Your task to perform on an android device: delete the emails in spam in the gmail app Image 0: 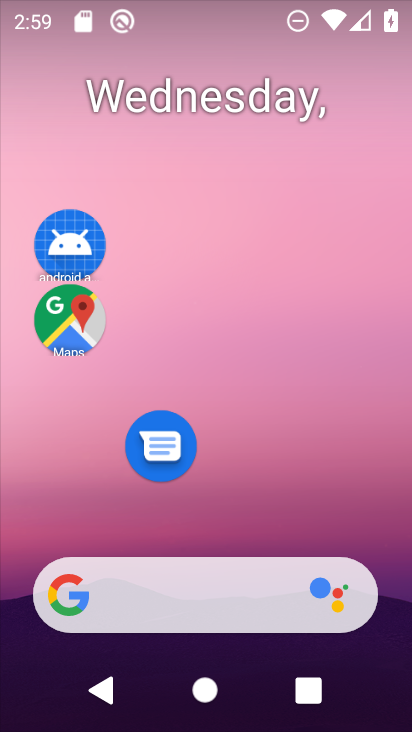
Step 0: drag from (315, 517) to (315, 135)
Your task to perform on an android device: delete the emails in spam in the gmail app Image 1: 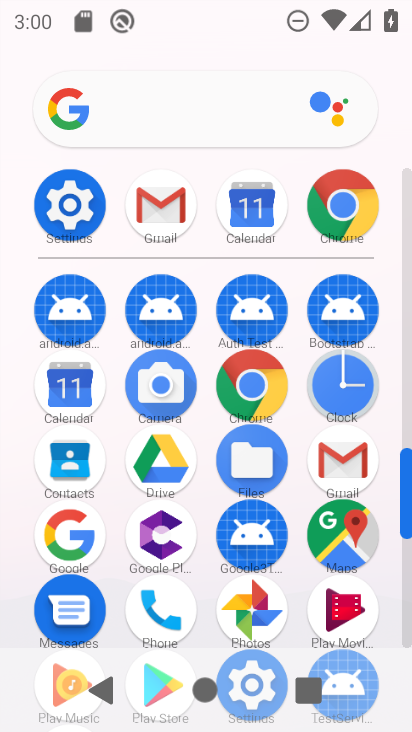
Step 1: click (344, 451)
Your task to perform on an android device: delete the emails in spam in the gmail app Image 2: 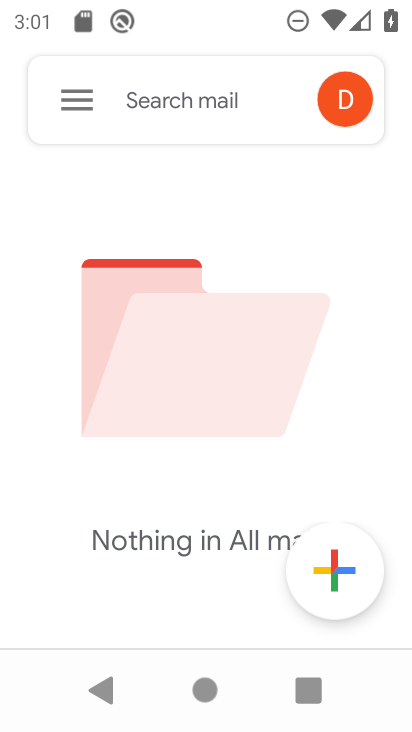
Step 2: click (68, 103)
Your task to perform on an android device: delete the emails in spam in the gmail app Image 3: 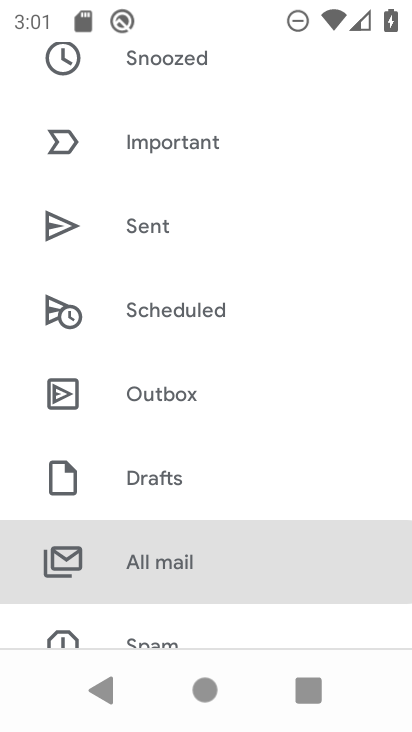
Step 3: drag from (80, 431) to (125, 262)
Your task to perform on an android device: delete the emails in spam in the gmail app Image 4: 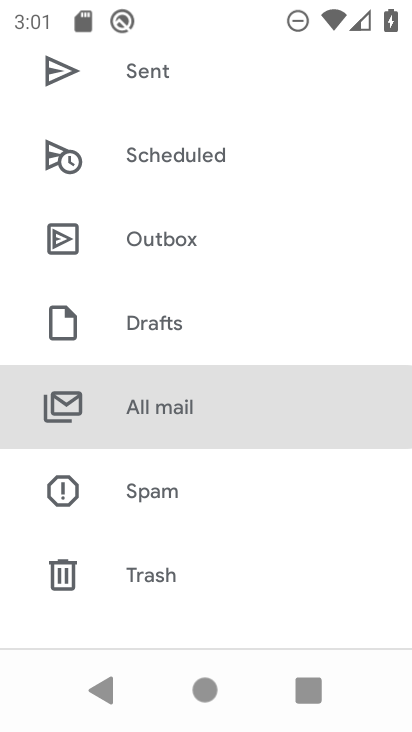
Step 4: click (118, 516)
Your task to perform on an android device: delete the emails in spam in the gmail app Image 5: 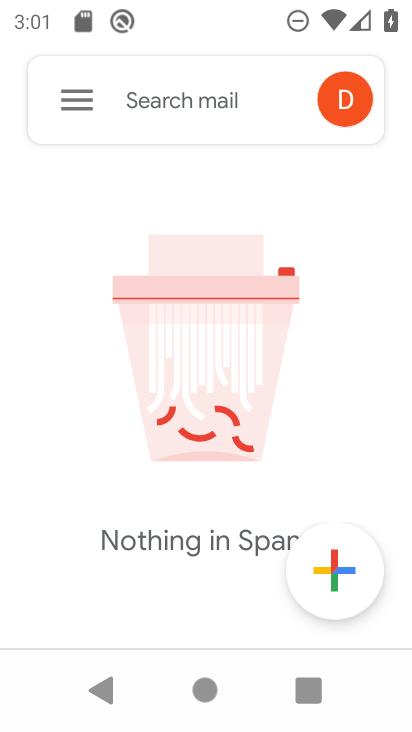
Step 5: task complete